Your task to perform on an android device: add a contact Image 0: 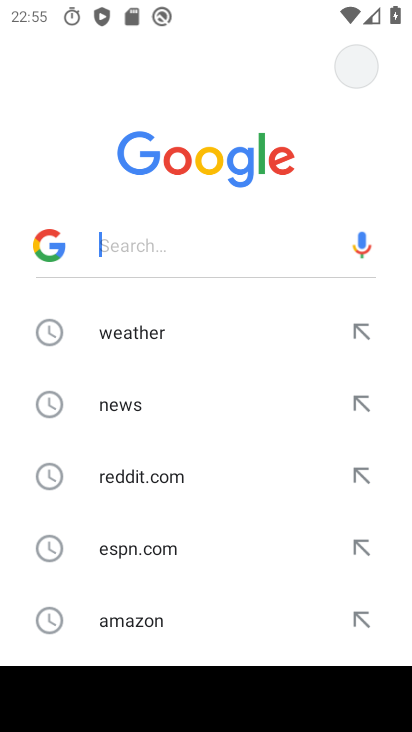
Step 0: press home button
Your task to perform on an android device: add a contact Image 1: 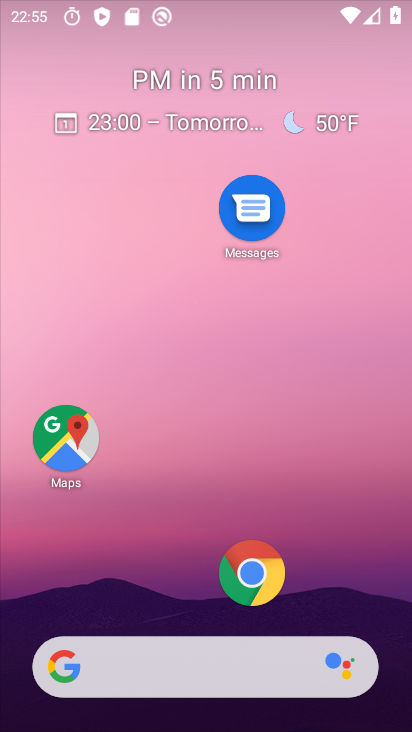
Step 1: drag from (189, 575) to (194, 82)
Your task to perform on an android device: add a contact Image 2: 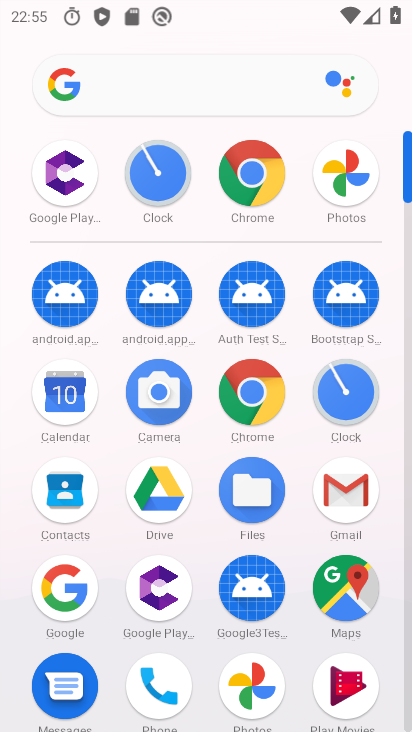
Step 2: click (62, 491)
Your task to perform on an android device: add a contact Image 3: 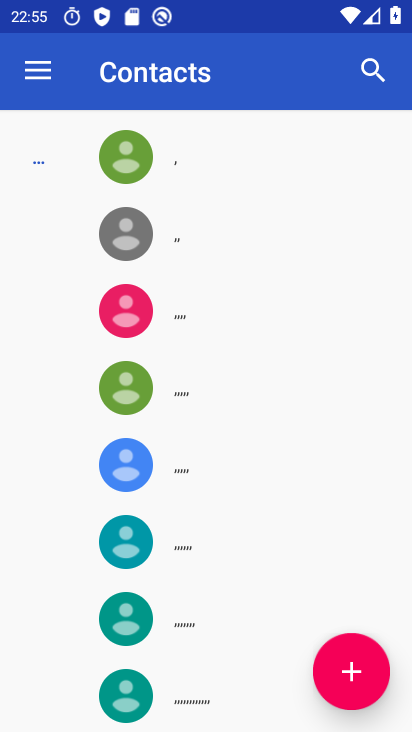
Step 3: click (349, 661)
Your task to perform on an android device: add a contact Image 4: 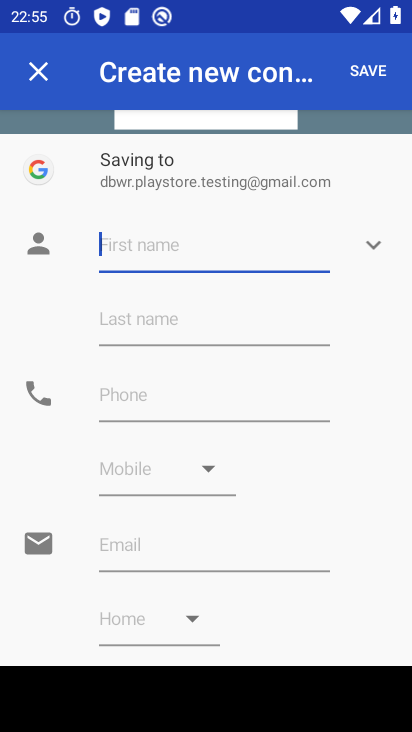
Step 4: type "ttddd"
Your task to perform on an android device: add a contact Image 5: 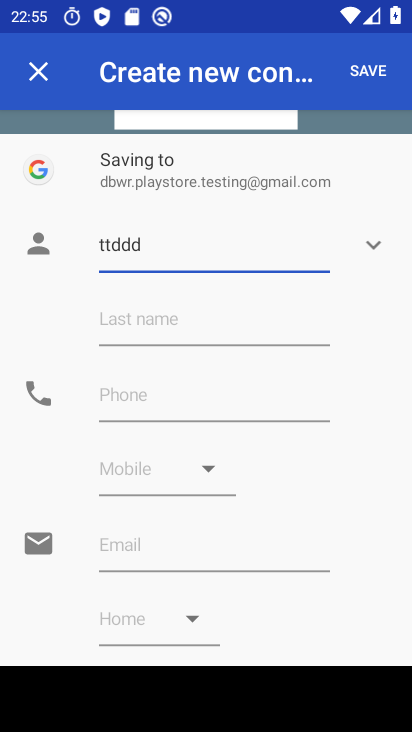
Step 5: click (366, 76)
Your task to perform on an android device: add a contact Image 6: 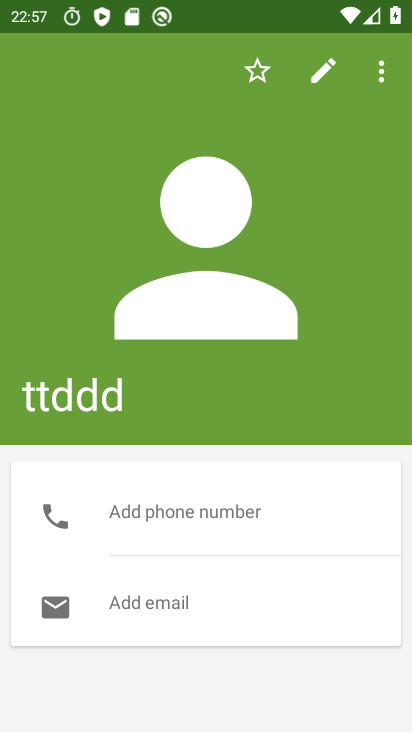
Step 6: task complete